Your task to perform on an android device: Search for sushi restaurants on Maps Image 0: 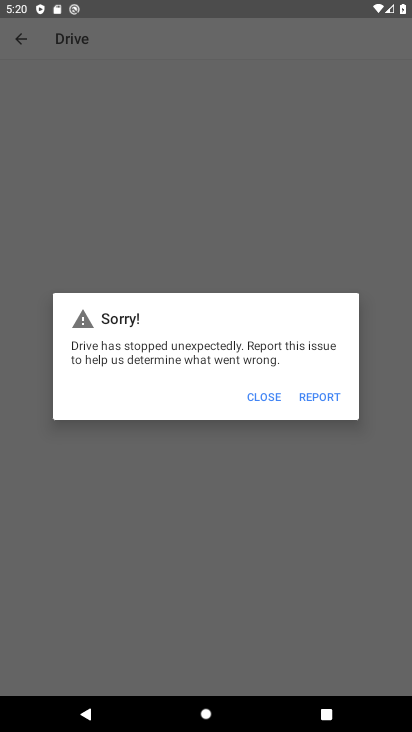
Step 0: press home button
Your task to perform on an android device: Search for sushi restaurants on Maps Image 1: 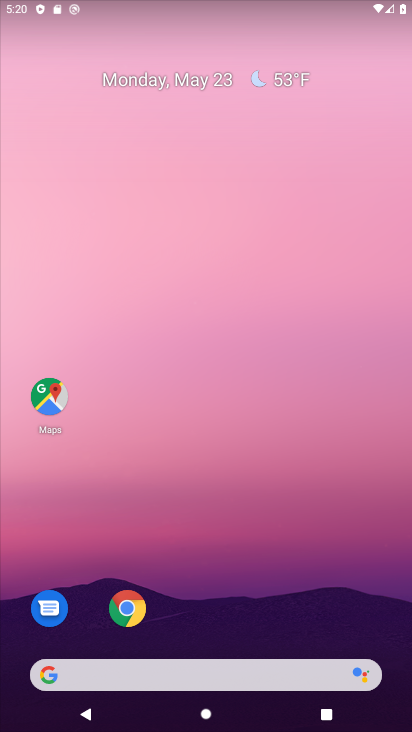
Step 1: click (57, 408)
Your task to perform on an android device: Search for sushi restaurants on Maps Image 2: 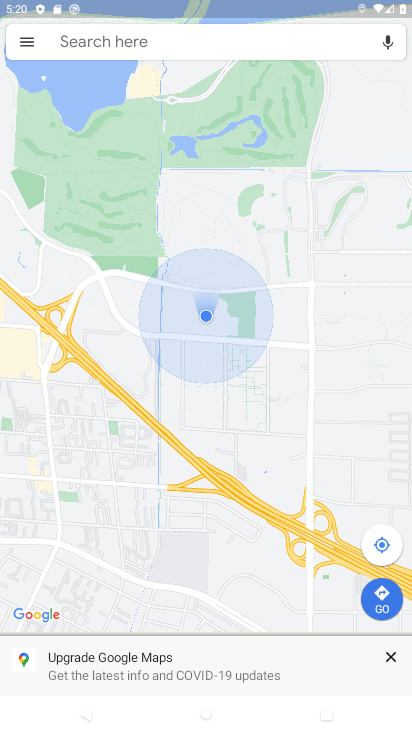
Step 2: click (184, 49)
Your task to perform on an android device: Search for sushi restaurants on Maps Image 3: 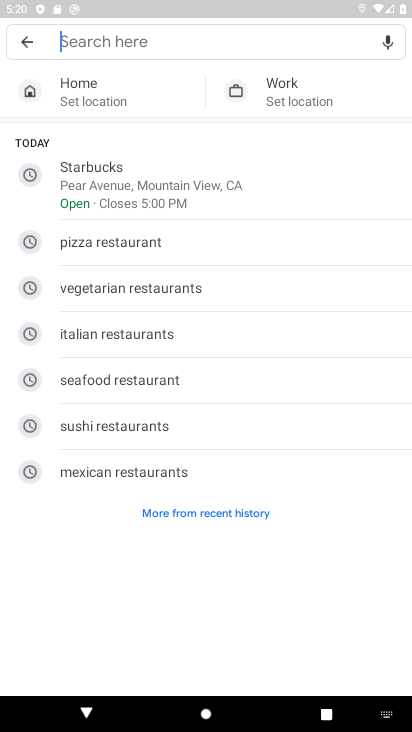
Step 3: click (109, 427)
Your task to perform on an android device: Search for sushi restaurants on Maps Image 4: 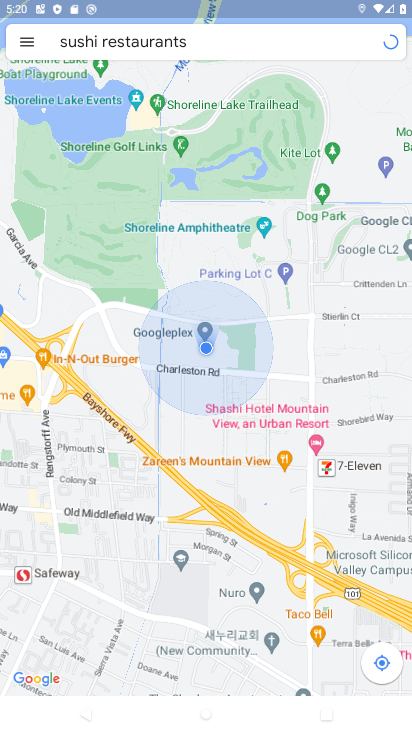
Step 4: task complete